Your task to perform on an android device: toggle priority inbox in the gmail app Image 0: 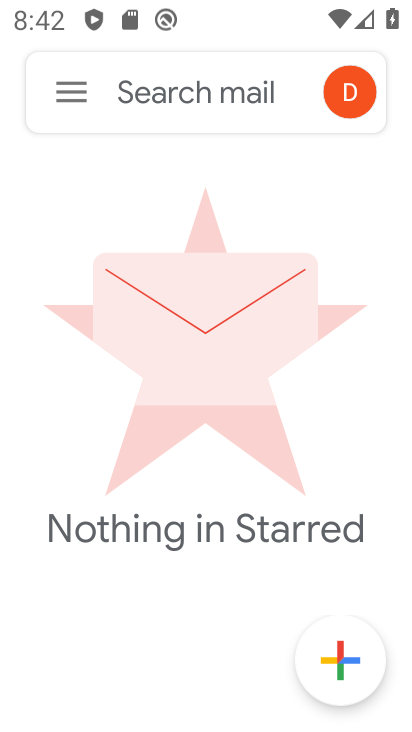
Step 0: click (56, 91)
Your task to perform on an android device: toggle priority inbox in the gmail app Image 1: 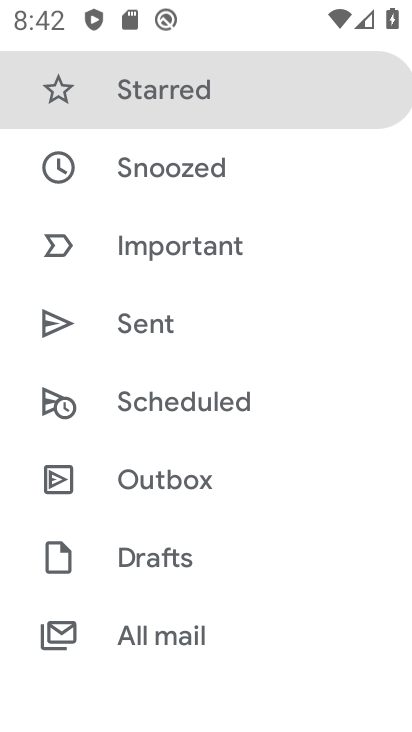
Step 1: drag from (128, 651) to (125, 153)
Your task to perform on an android device: toggle priority inbox in the gmail app Image 2: 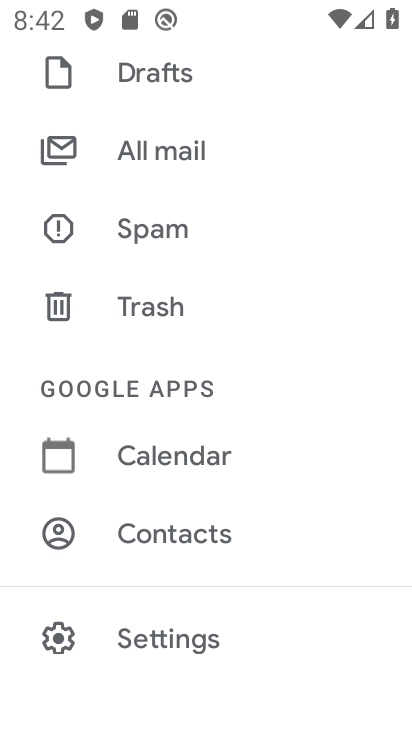
Step 2: click (155, 646)
Your task to perform on an android device: toggle priority inbox in the gmail app Image 3: 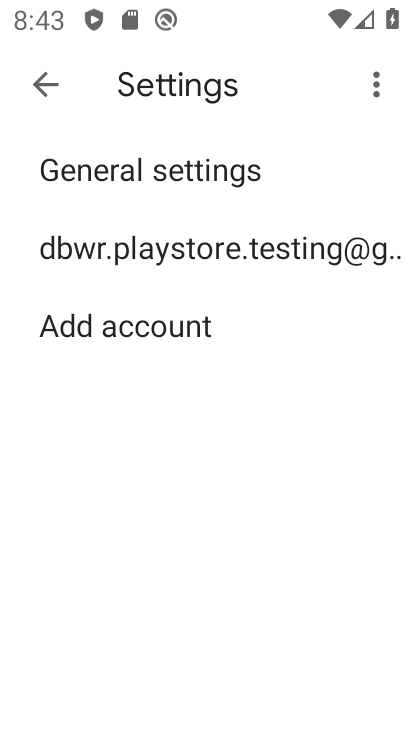
Step 3: click (81, 216)
Your task to perform on an android device: toggle priority inbox in the gmail app Image 4: 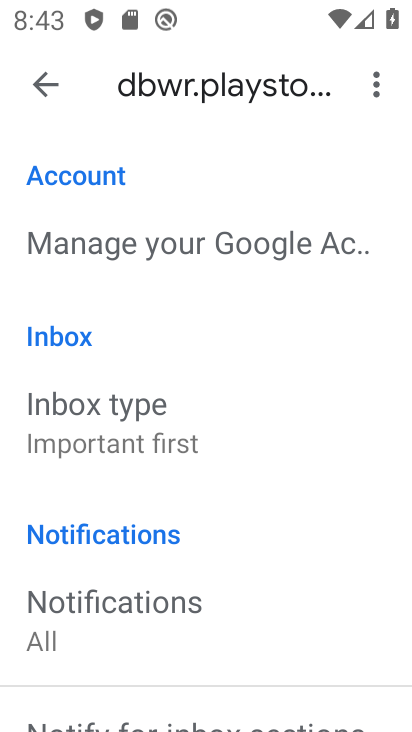
Step 4: drag from (154, 630) to (128, 421)
Your task to perform on an android device: toggle priority inbox in the gmail app Image 5: 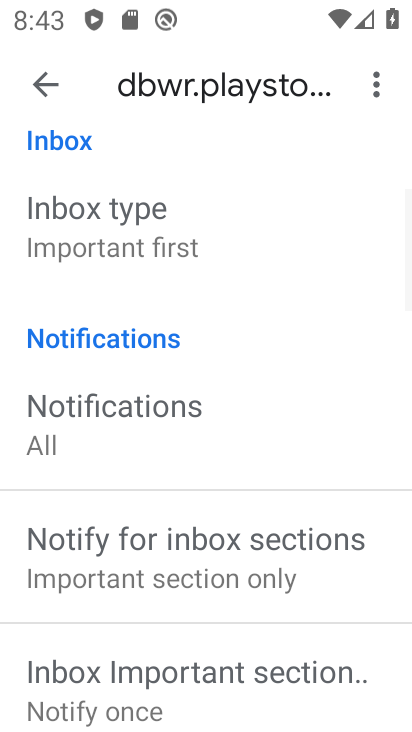
Step 5: click (129, 212)
Your task to perform on an android device: toggle priority inbox in the gmail app Image 6: 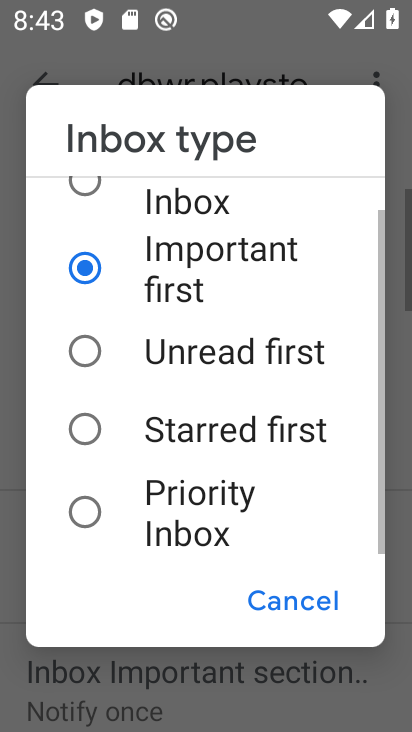
Step 6: click (152, 510)
Your task to perform on an android device: toggle priority inbox in the gmail app Image 7: 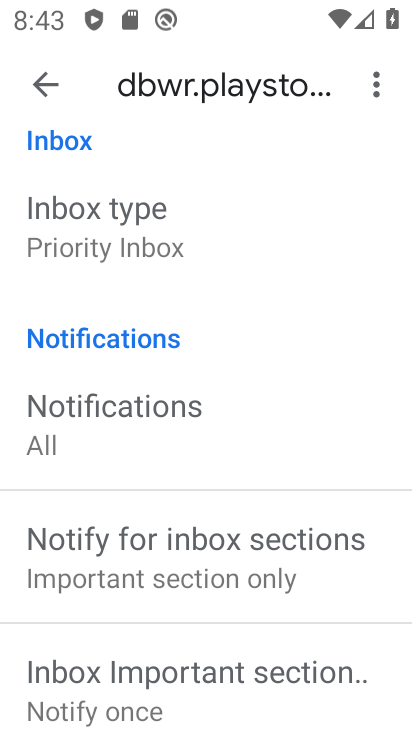
Step 7: task complete